Your task to perform on an android device: open sync settings in chrome Image 0: 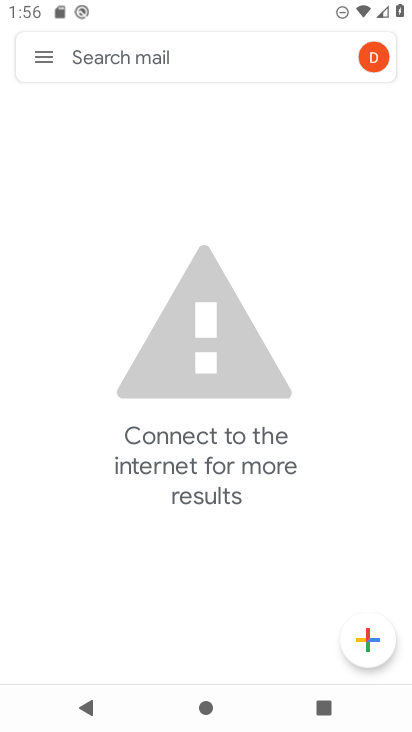
Step 0: press home button
Your task to perform on an android device: open sync settings in chrome Image 1: 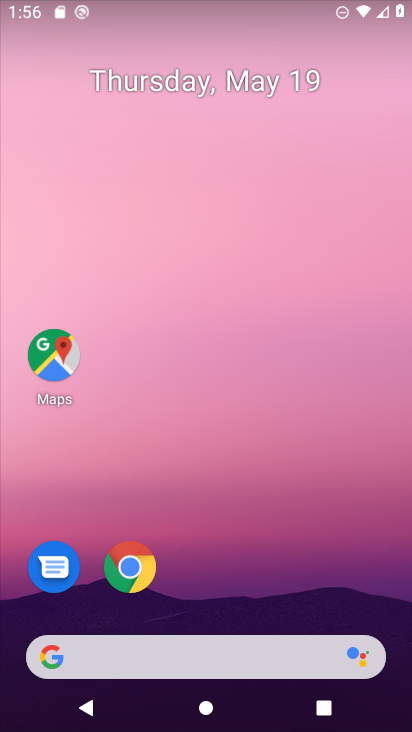
Step 1: click (142, 567)
Your task to perform on an android device: open sync settings in chrome Image 2: 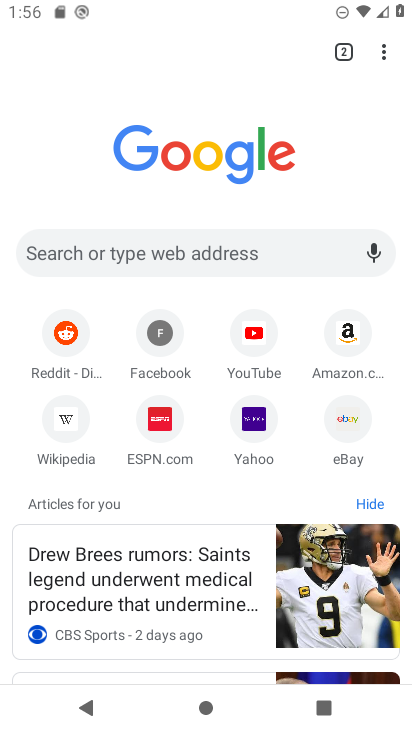
Step 2: click (382, 53)
Your task to perform on an android device: open sync settings in chrome Image 3: 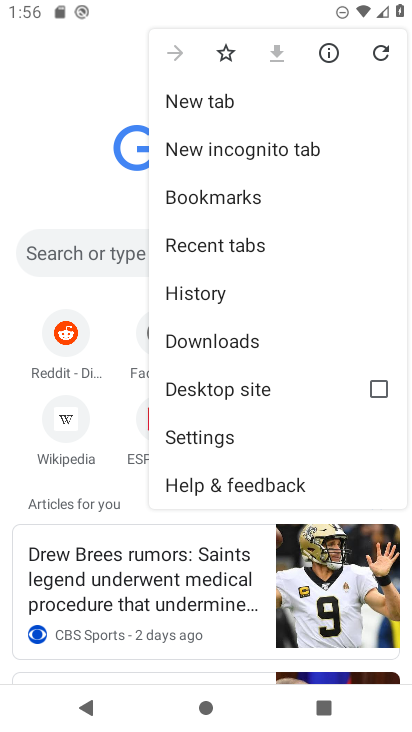
Step 3: click (231, 429)
Your task to perform on an android device: open sync settings in chrome Image 4: 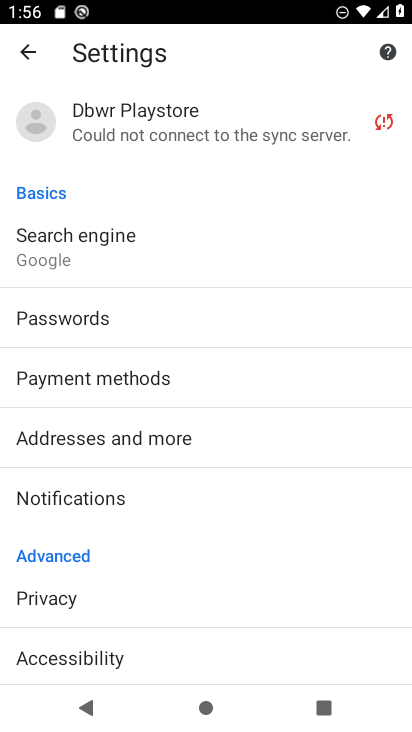
Step 4: click (243, 126)
Your task to perform on an android device: open sync settings in chrome Image 5: 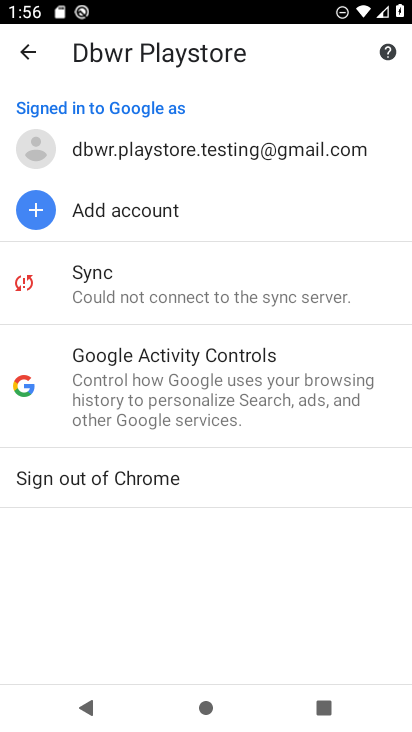
Step 5: click (198, 290)
Your task to perform on an android device: open sync settings in chrome Image 6: 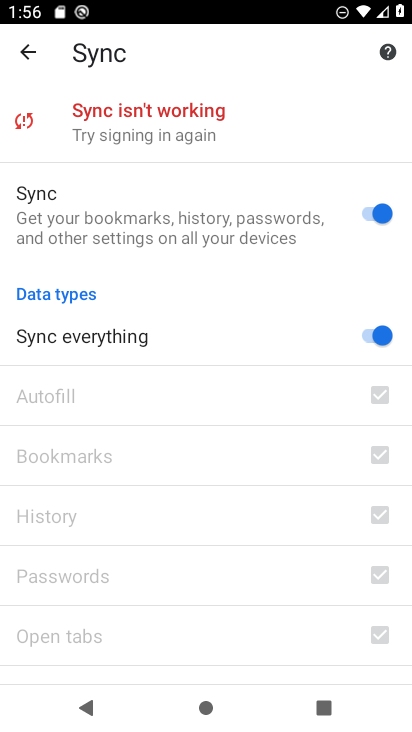
Step 6: task complete